Your task to perform on an android device: star an email in the gmail app Image 0: 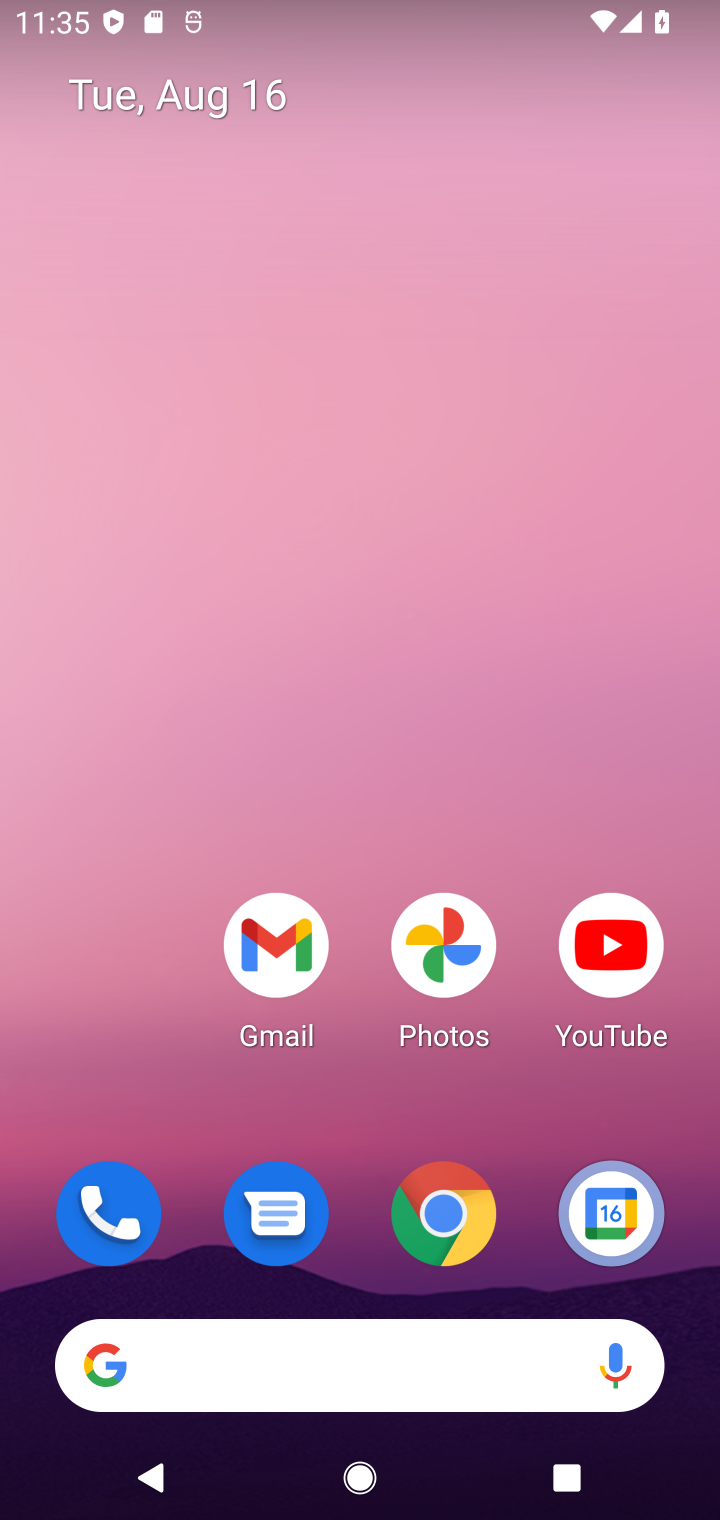
Step 0: drag from (168, 1019) to (356, 42)
Your task to perform on an android device: star an email in the gmail app Image 1: 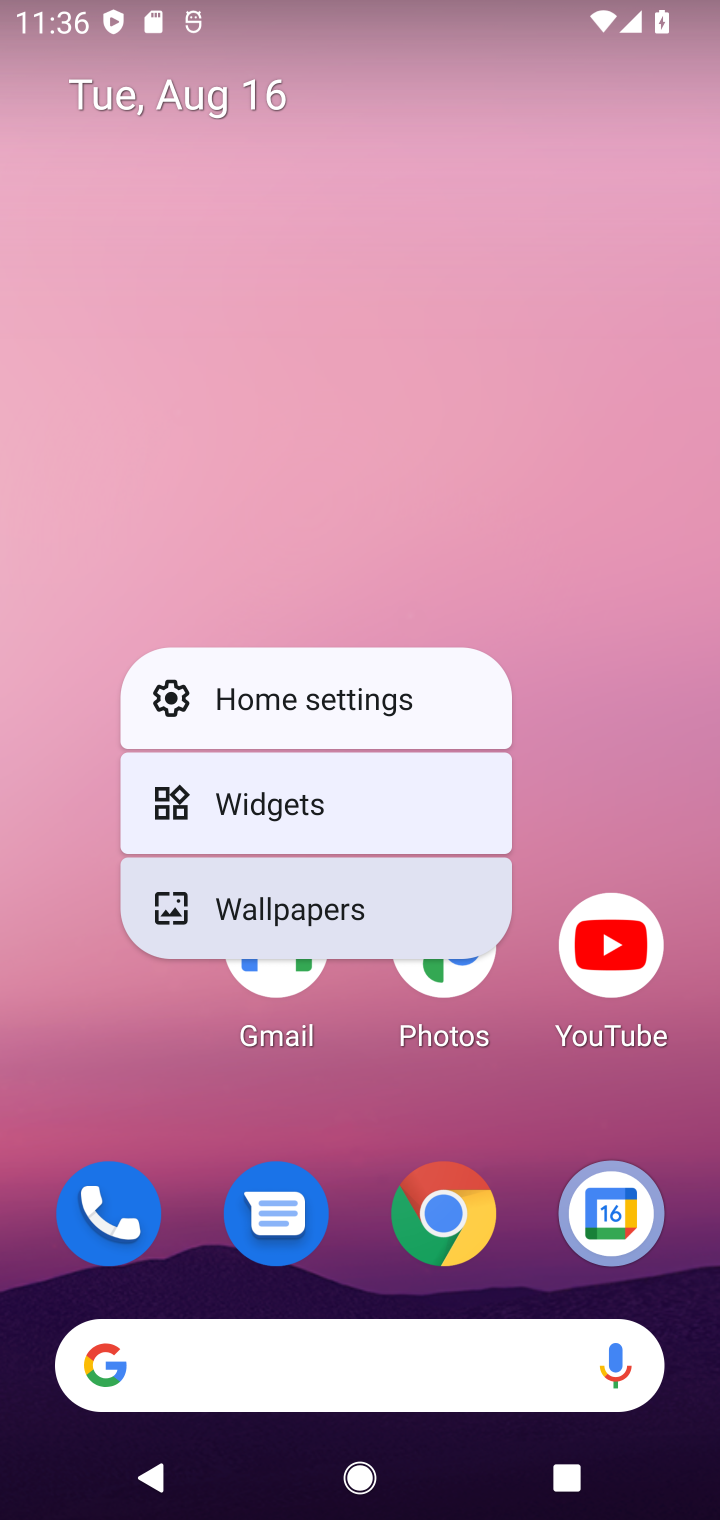
Step 1: click (526, 473)
Your task to perform on an android device: star an email in the gmail app Image 2: 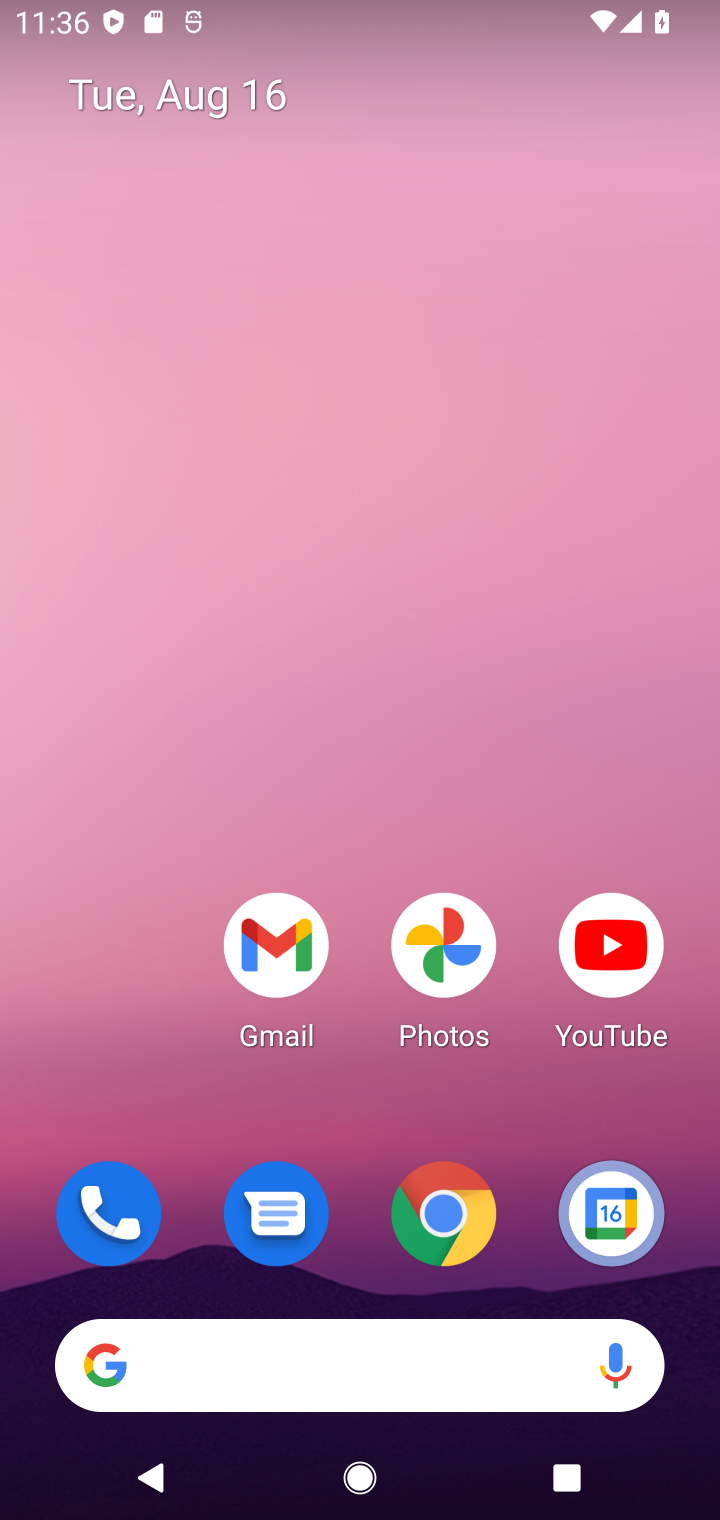
Step 2: drag from (424, 640) to (489, 137)
Your task to perform on an android device: star an email in the gmail app Image 3: 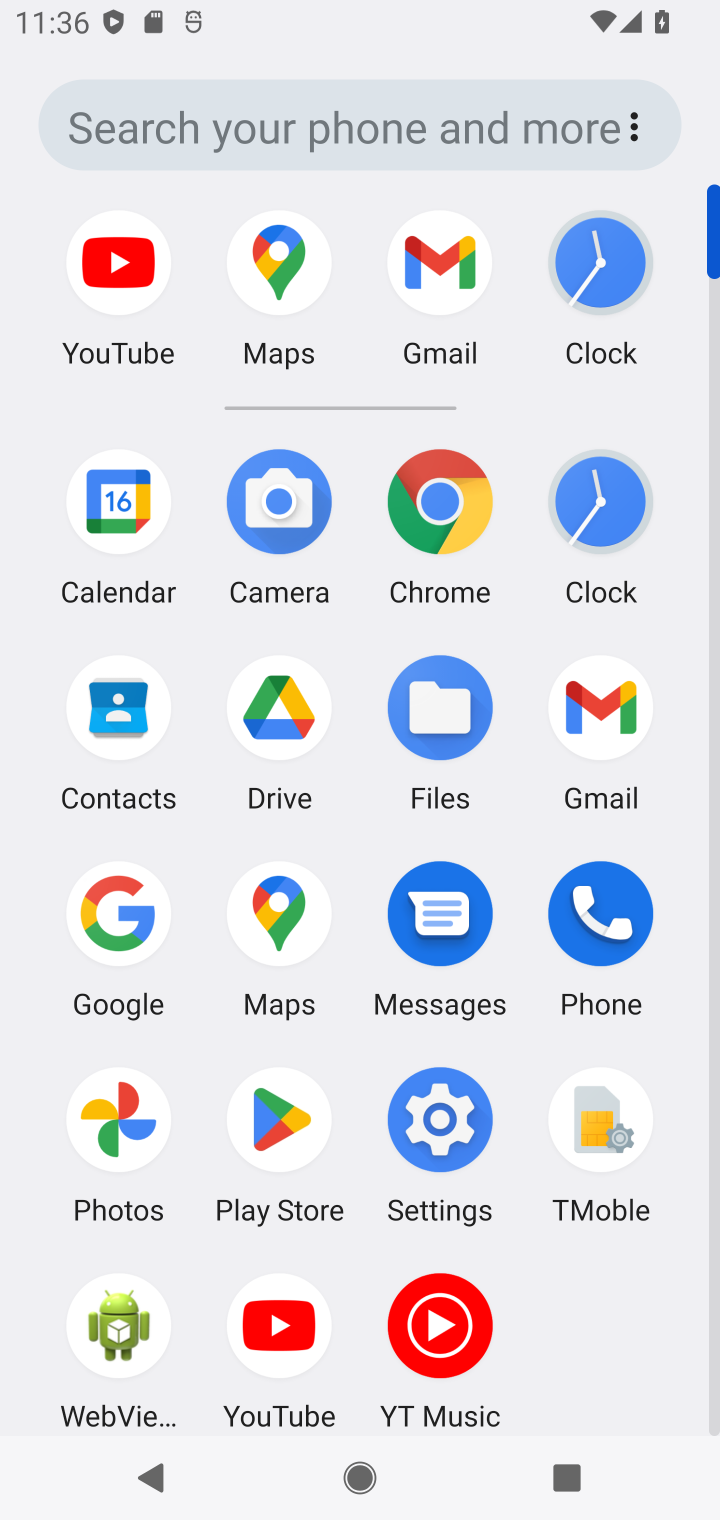
Step 3: click (595, 731)
Your task to perform on an android device: star an email in the gmail app Image 4: 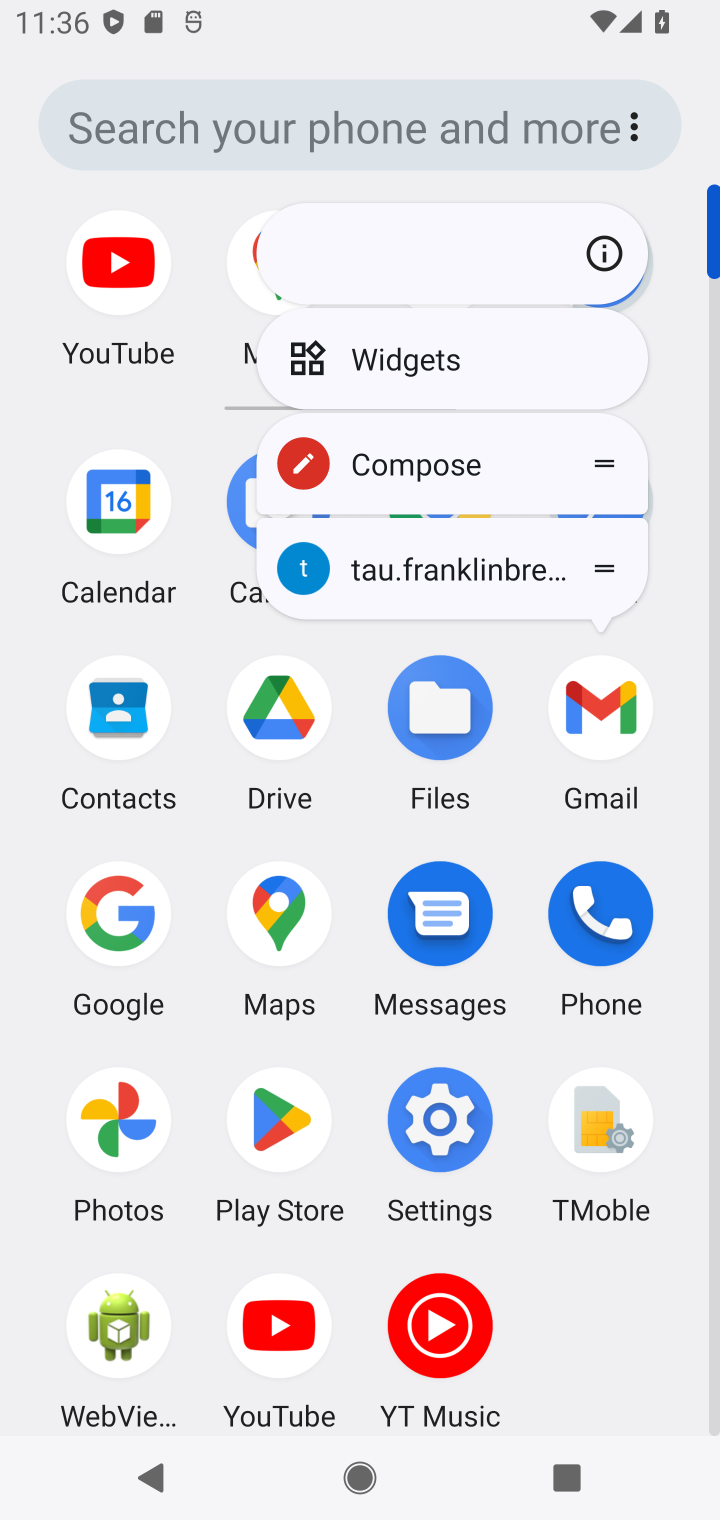
Step 4: click (599, 704)
Your task to perform on an android device: star an email in the gmail app Image 5: 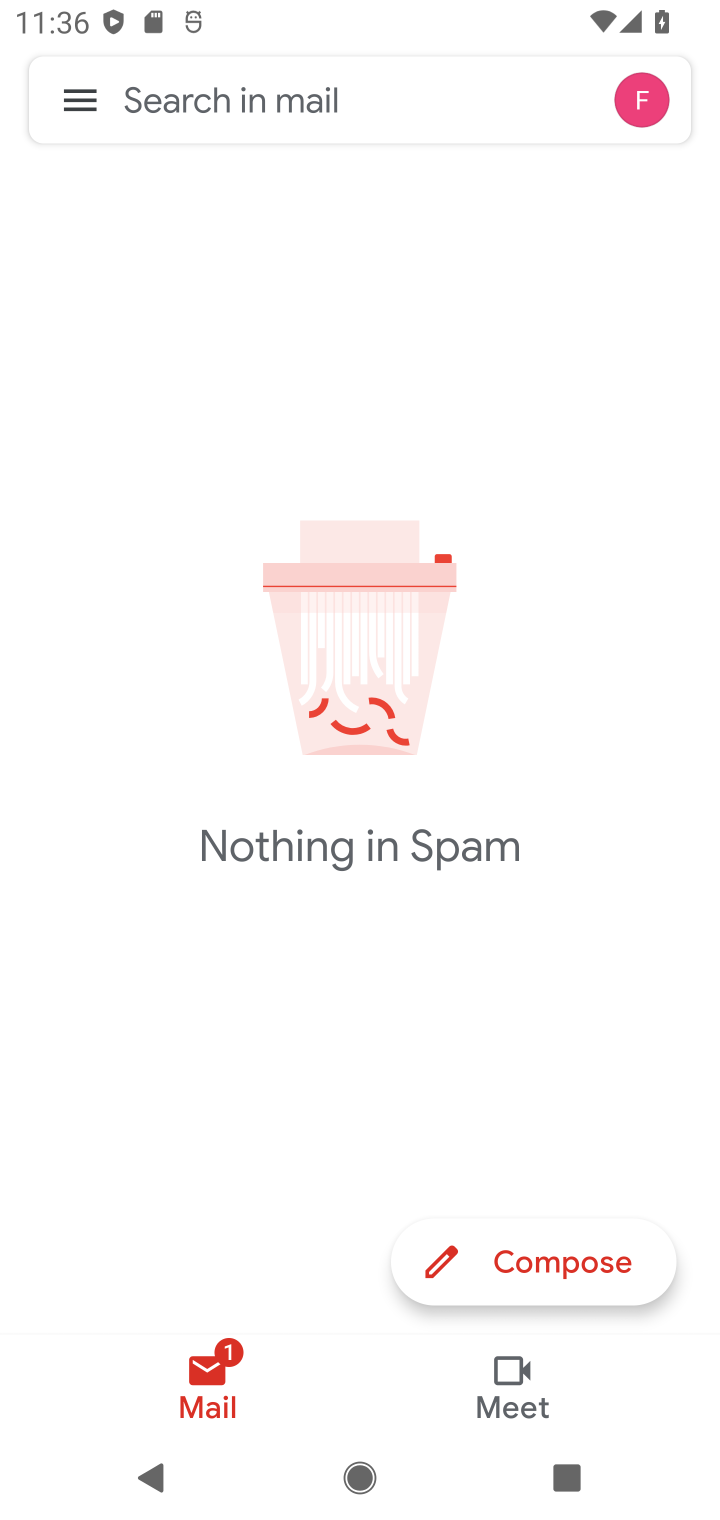
Step 5: click (89, 106)
Your task to perform on an android device: star an email in the gmail app Image 6: 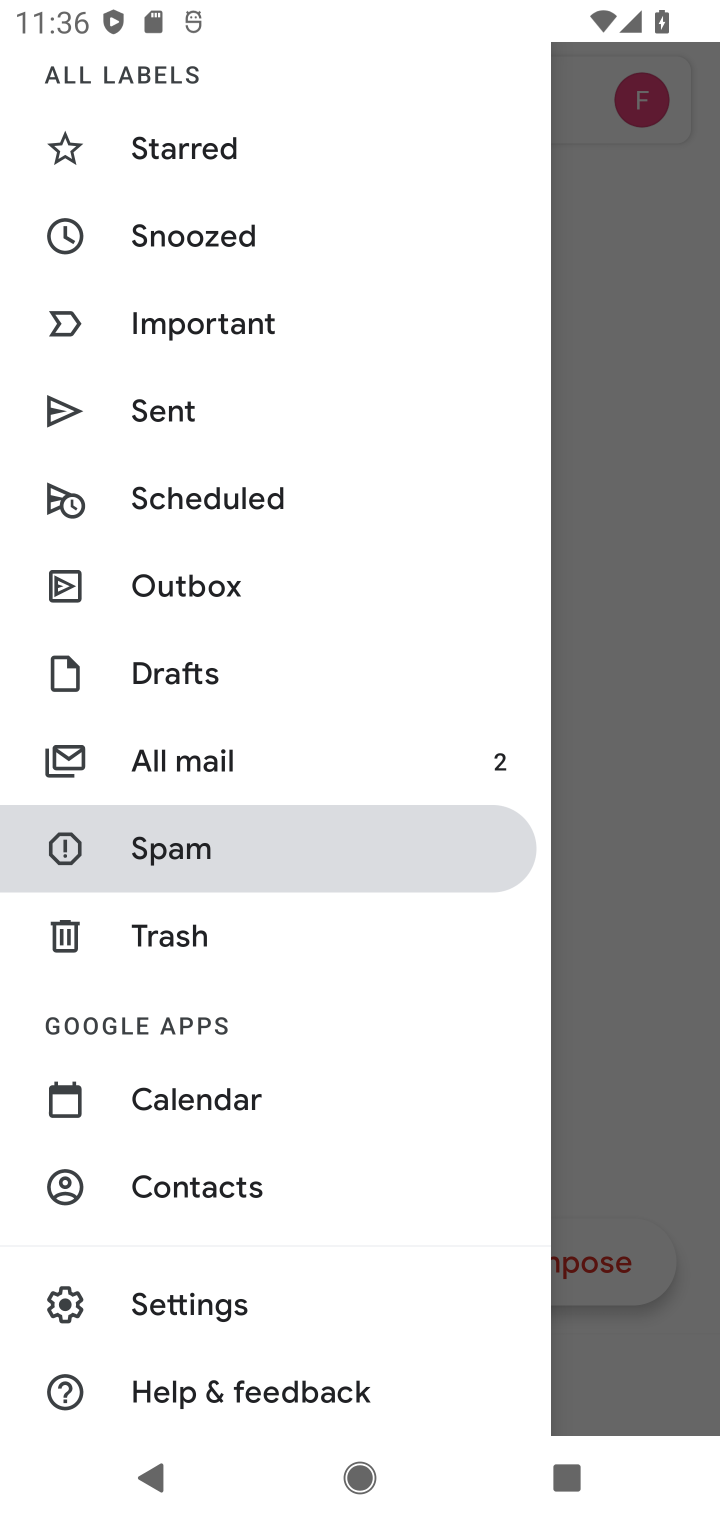
Step 6: click (147, 771)
Your task to perform on an android device: star an email in the gmail app Image 7: 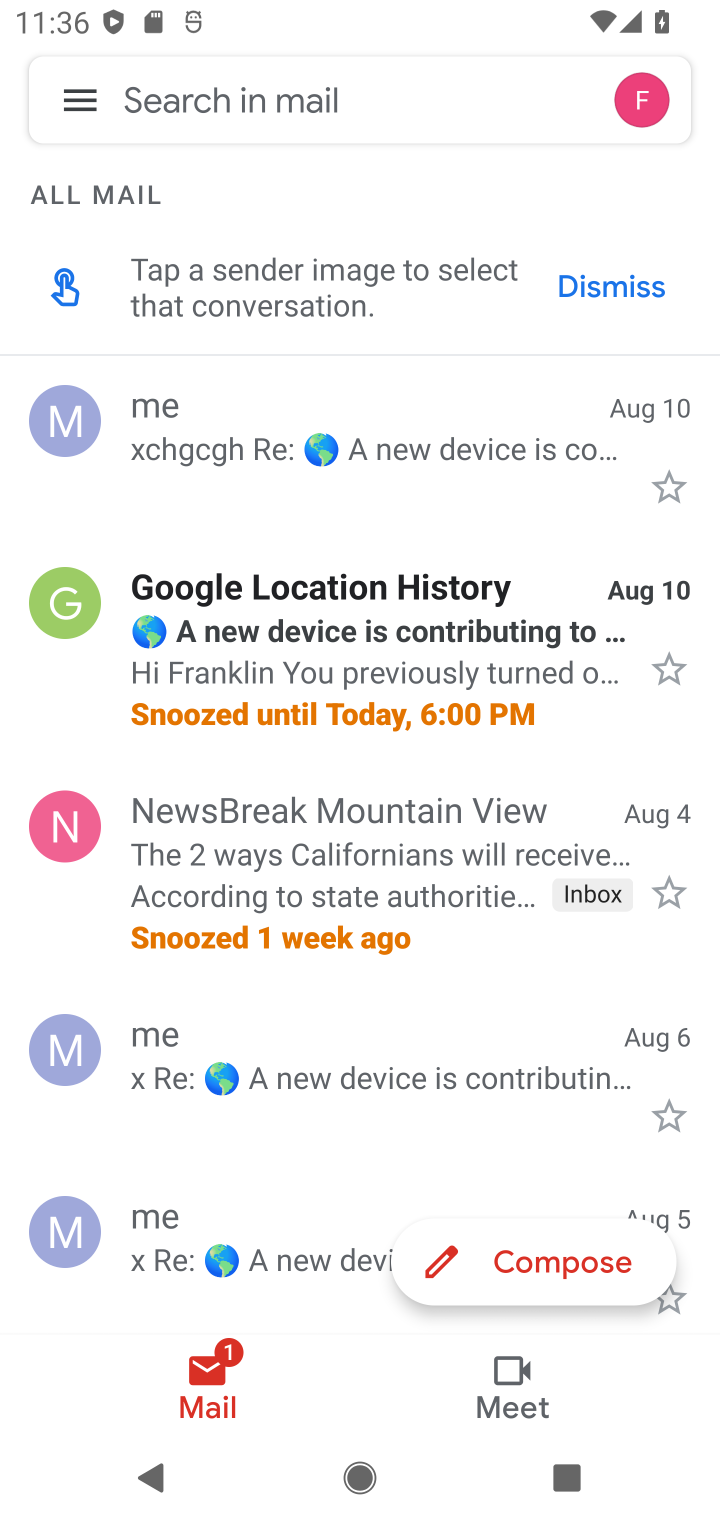
Step 7: click (668, 1115)
Your task to perform on an android device: star an email in the gmail app Image 8: 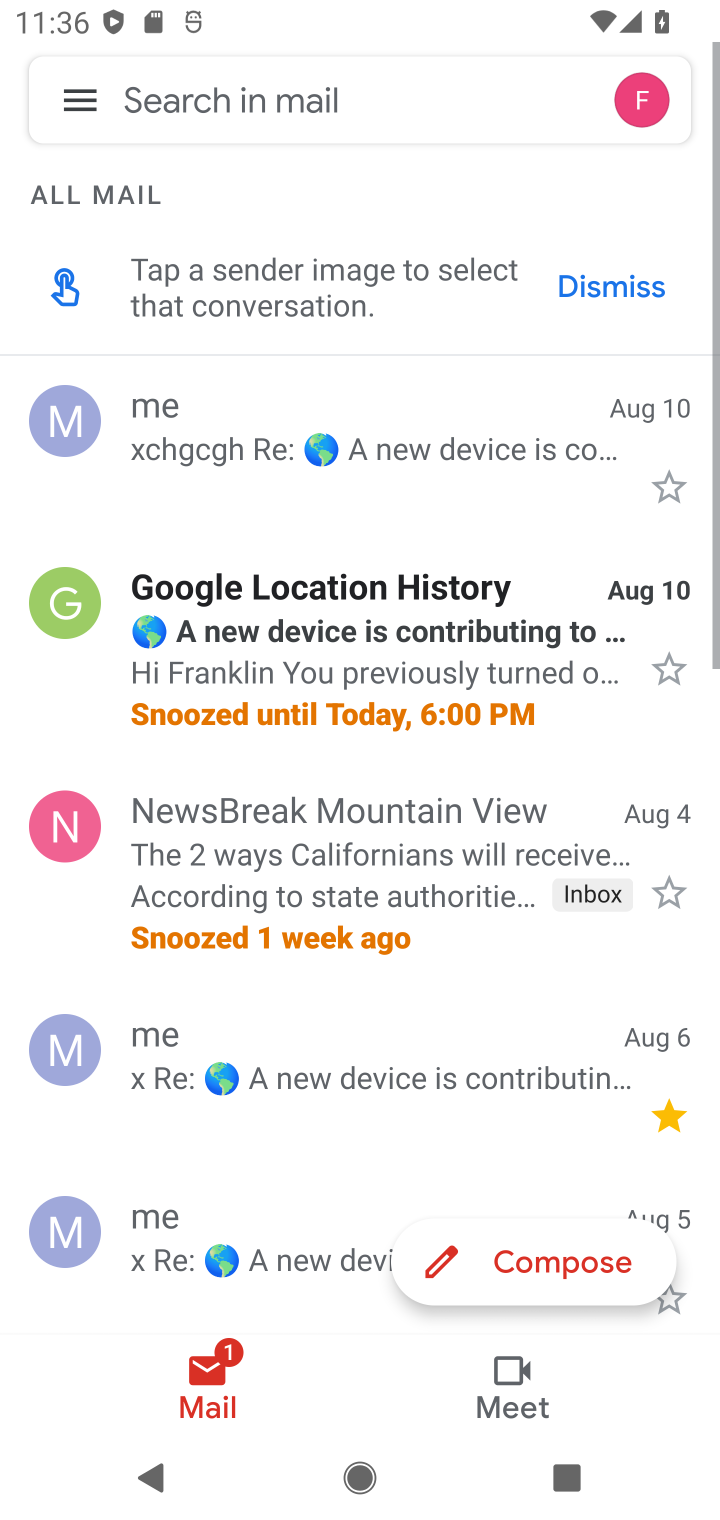
Step 8: task complete